Your task to perform on an android device: Empty the shopping cart on costco.com. Search for beats solo 3 on costco.com, select the first entry, add it to the cart, then select checkout. Image 0: 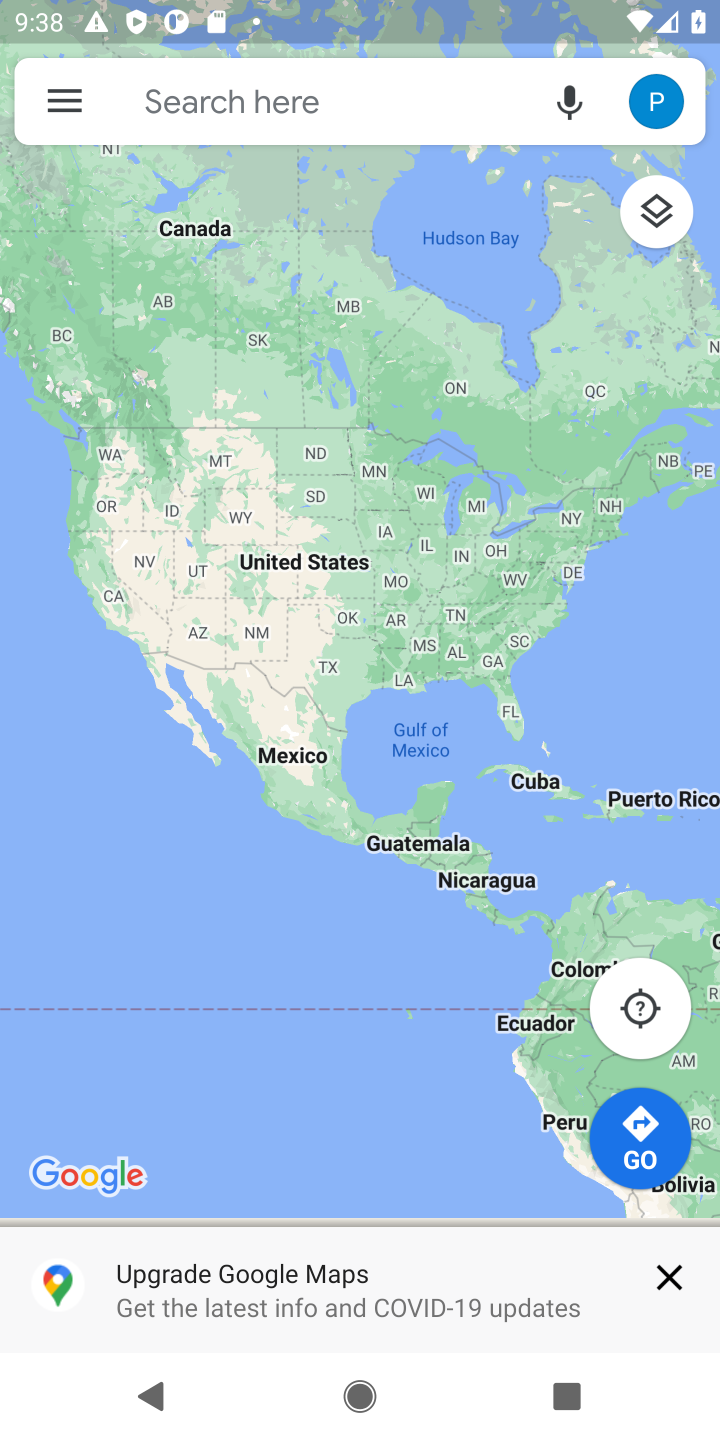
Step 0: press home button
Your task to perform on an android device: Empty the shopping cart on costco.com. Search for beats solo 3 on costco.com, select the first entry, add it to the cart, then select checkout. Image 1: 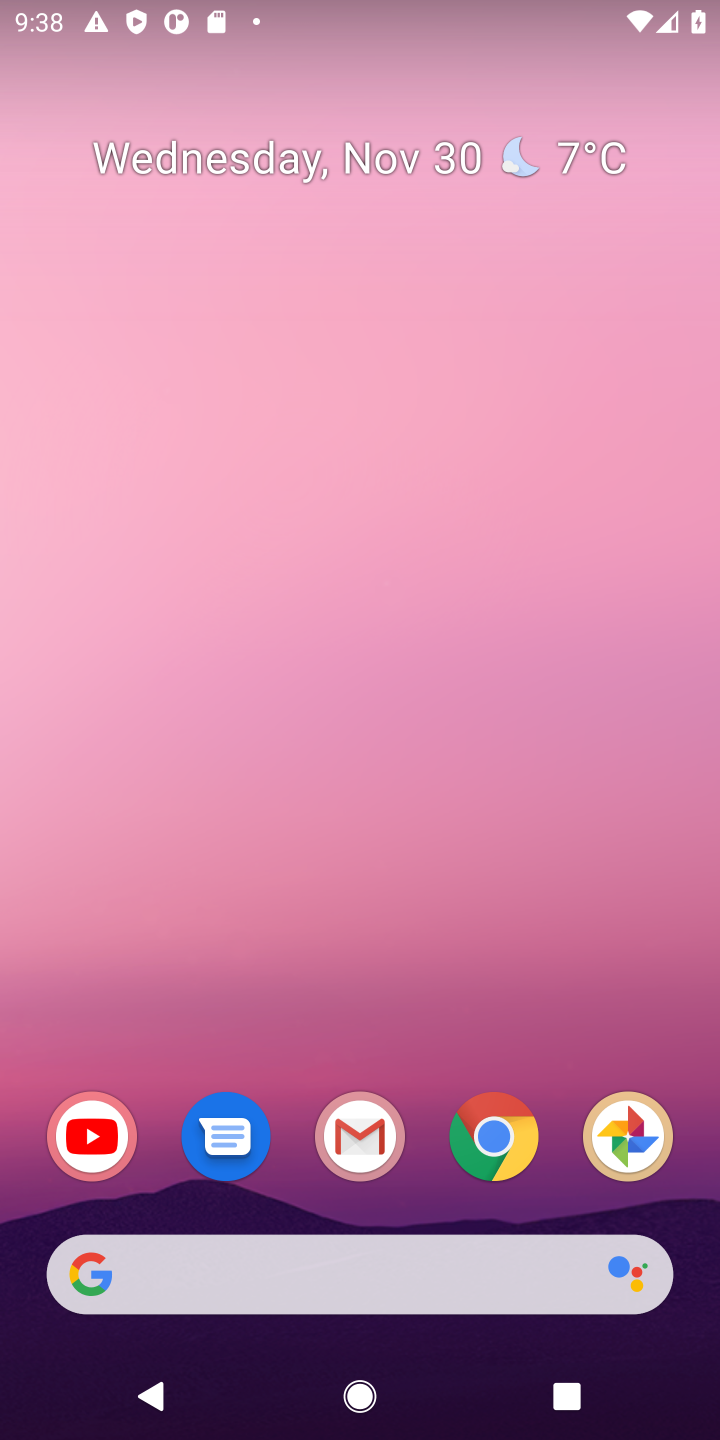
Step 1: click (480, 1151)
Your task to perform on an android device: Empty the shopping cart on costco.com. Search for beats solo 3 on costco.com, select the first entry, add it to the cart, then select checkout. Image 2: 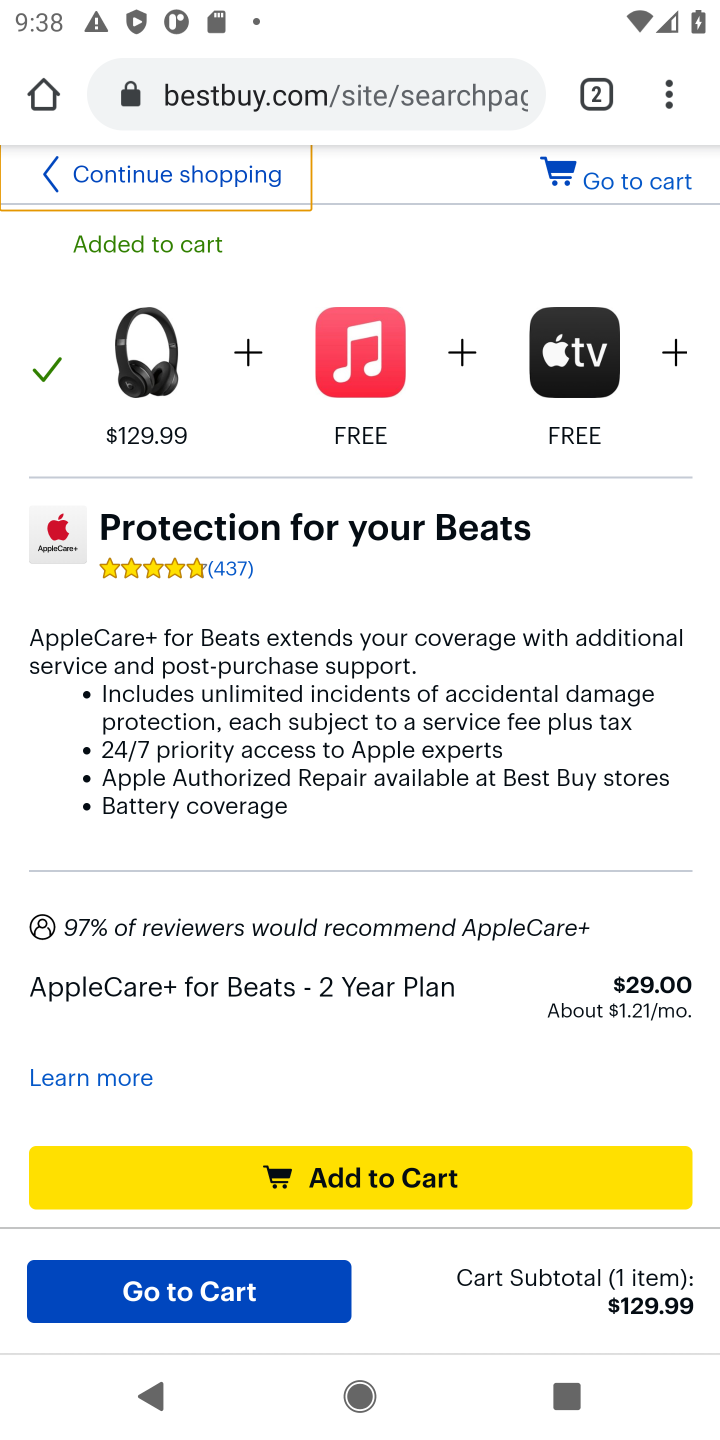
Step 2: click (308, 95)
Your task to perform on an android device: Empty the shopping cart on costco.com. Search for beats solo 3 on costco.com, select the first entry, add it to the cart, then select checkout. Image 3: 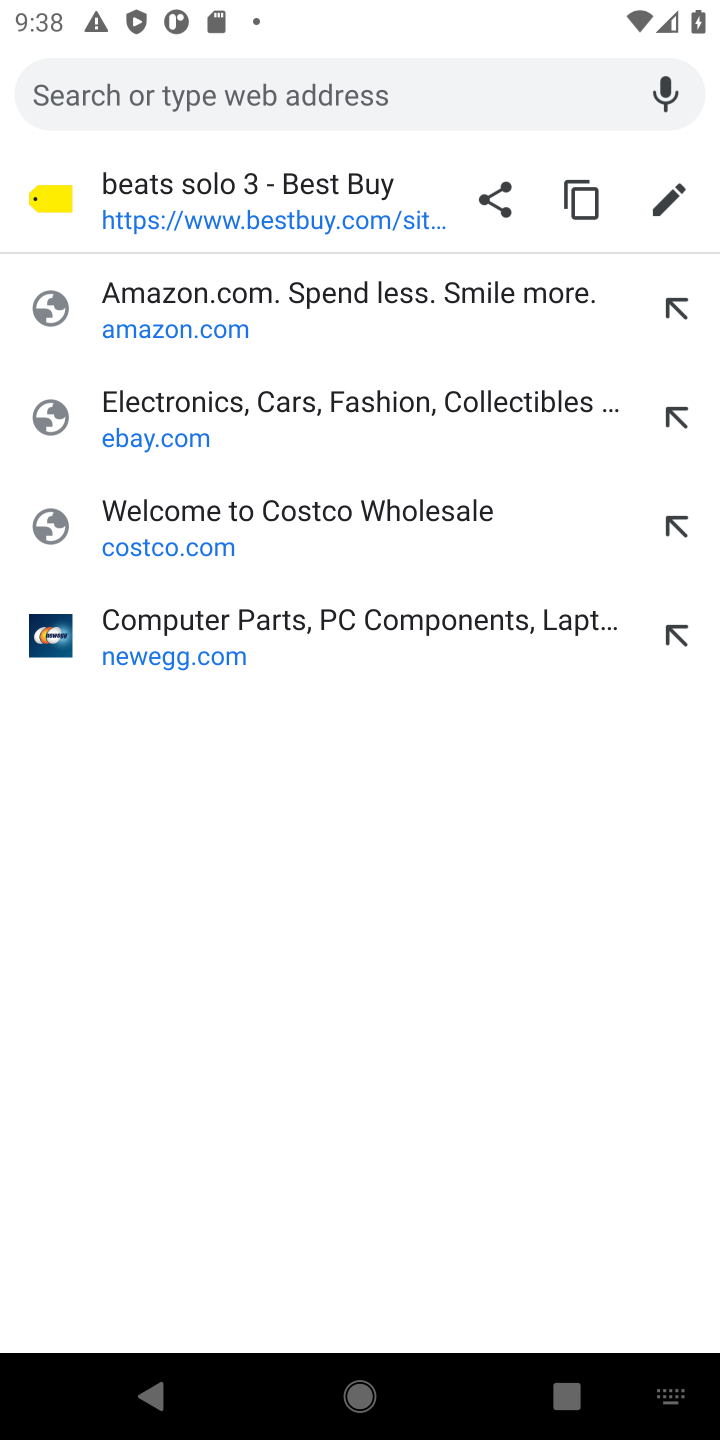
Step 3: click (144, 513)
Your task to perform on an android device: Empty the shopping cart on costco.com. Search for beats solo 3 on costco.com, select the first entry, add it to the cart, then select checkout. Image 4: 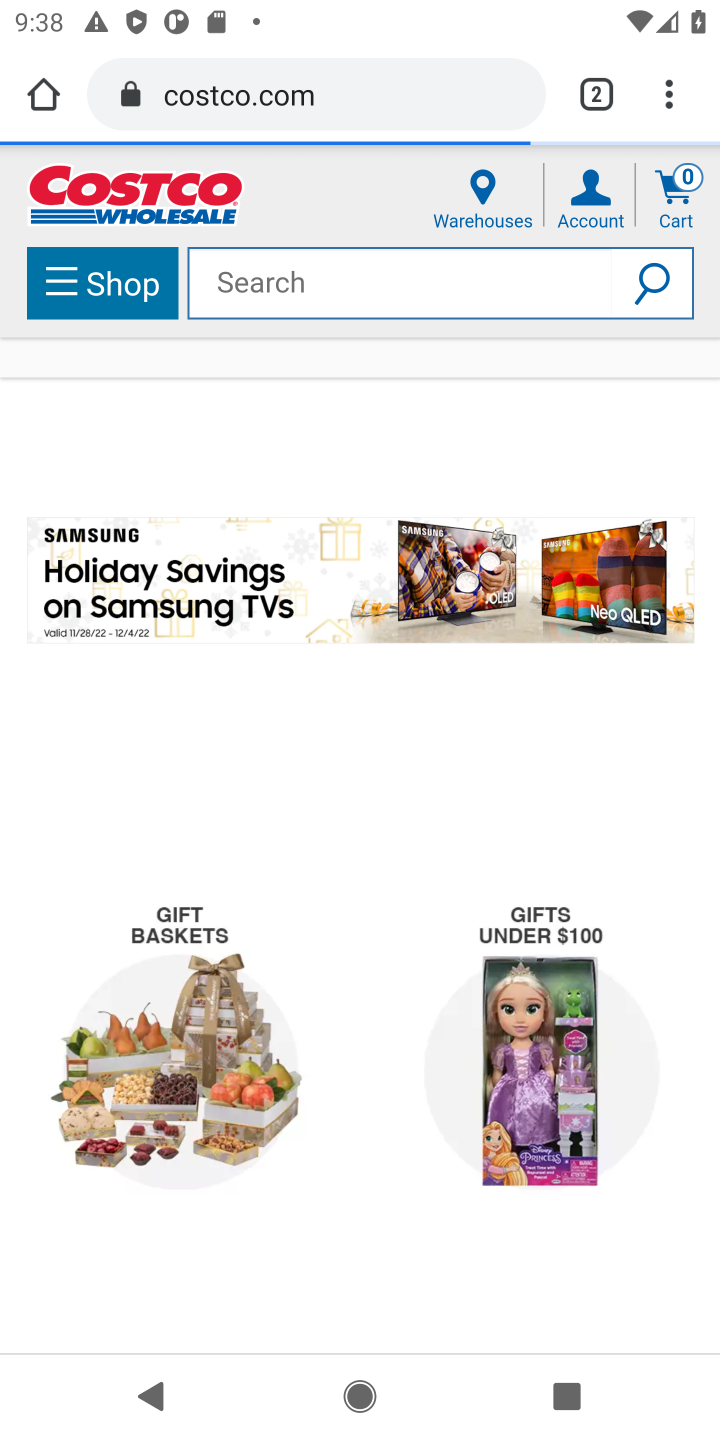
Step 4: click (684, 188)
Your task to perform on an android device: Empty the shopping cart on costco.com. Search for beats solo 3 on costco.com, select the first entry, add it to the cart, then select checkout. Image 5: 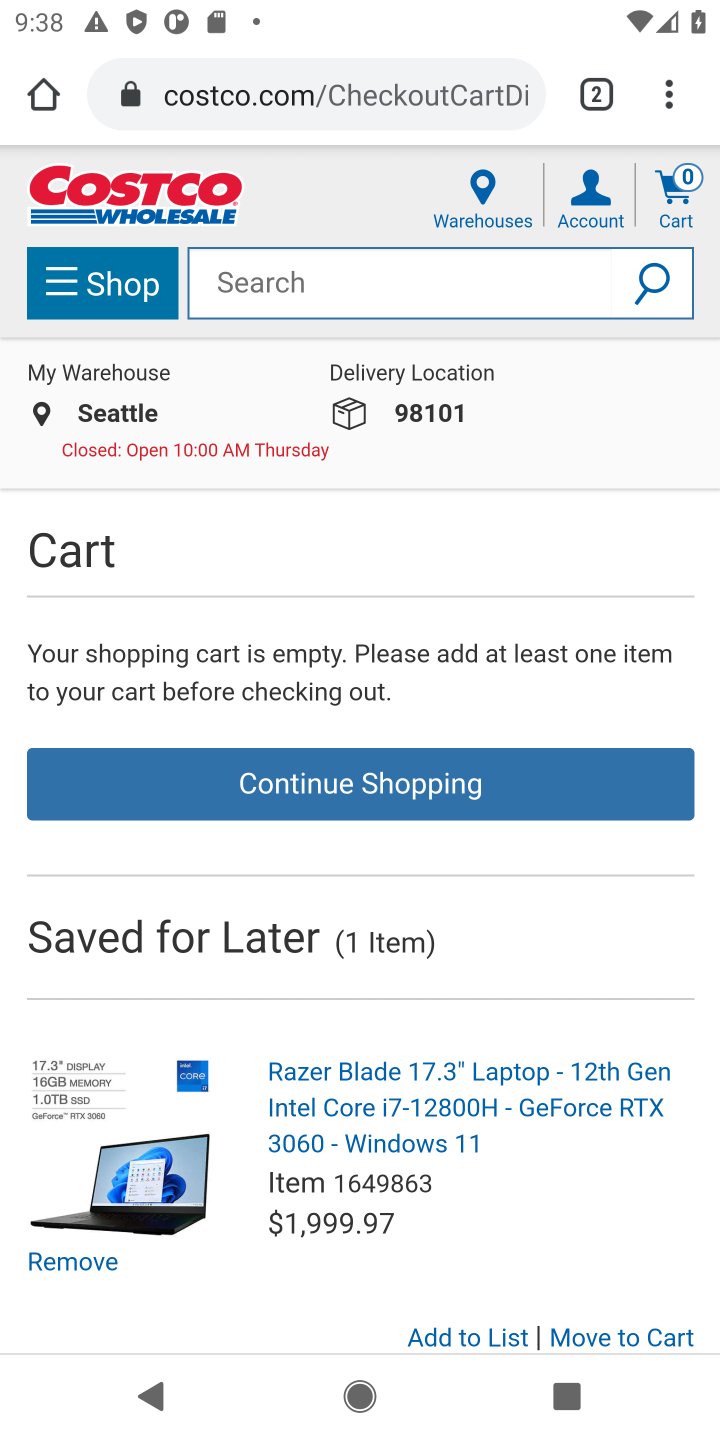
Step 5: click (318, 297)
Your task to perform on an android device: Empty the shopping cart on costco.com. Search for beats solo 3 on costco.com, select the first entry, add it to the cart, then select checkout. Image 6: 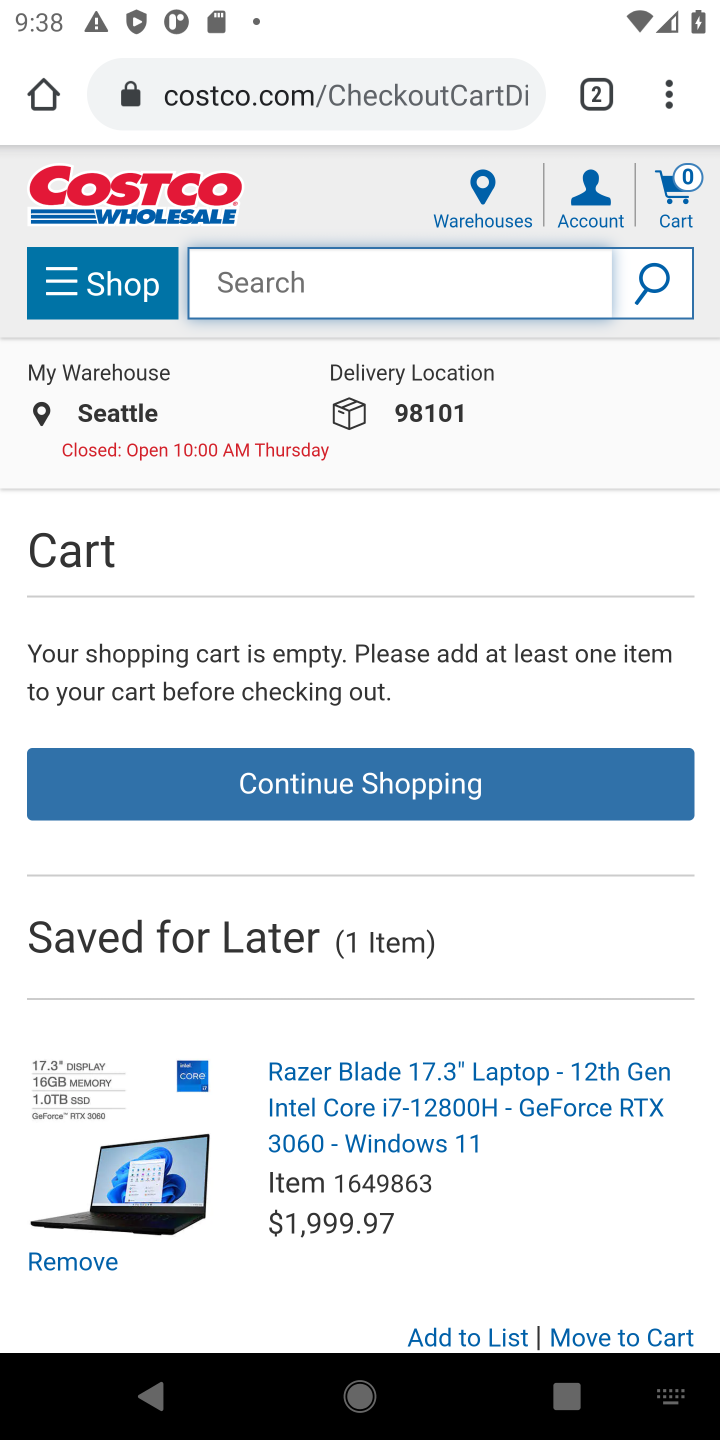
Step 6: type "beats solo 3"
Your task to perform on an android device: Empty the shopping cart on costco.com. Search for beats solo 3 on costco.com, select the first entry, add it to the cart, then select checkout. Image 7: 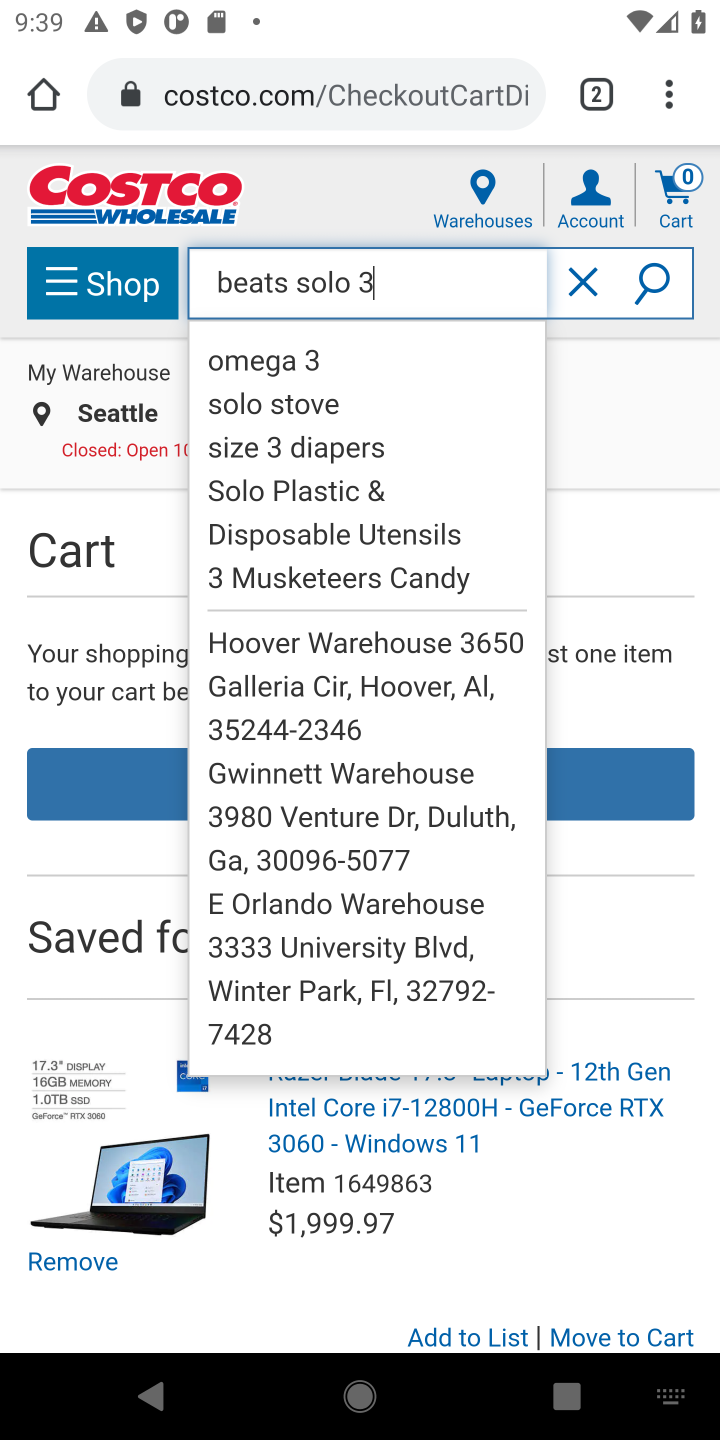
Step 7: click (661, 287)
Your task to perform on an android device: Empty the shopping cart on costco.com. Search for beats solo 3 on costco.com, select the first entry, add it to the cart, then select checkout. Image 8: 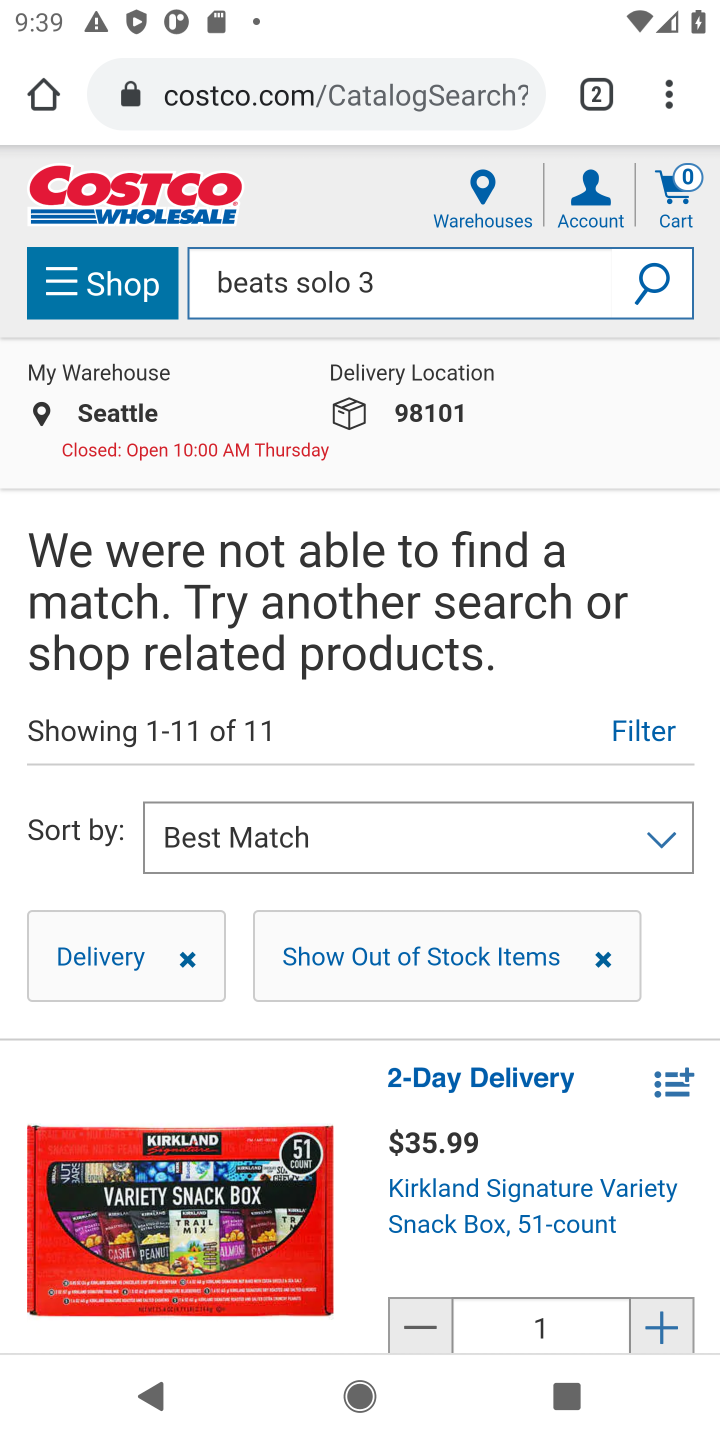
Step 8: task complete